Your task to perform on an android device: Search for 8K TVs on Best Buy. Image 0: 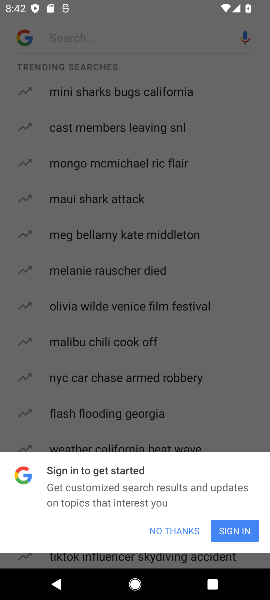
Step 0: press home button
Your task to perform on an android device: Search for 8K TVs on Best Buy. Image 1: 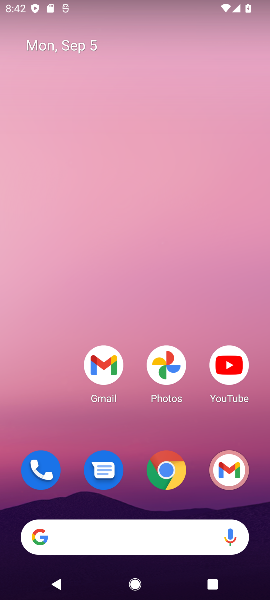
Step 1: click (135, 539)
Your task to perform on an android device: Search for 8K TVs on Best Buy. Image 2: 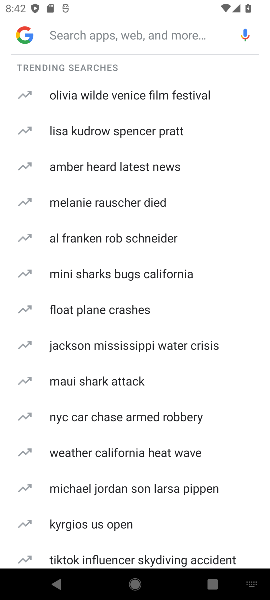
Step 2: type "best buy"
Your task to perform on an android device: Search for 8K TVs on Best Buy. Image 3: 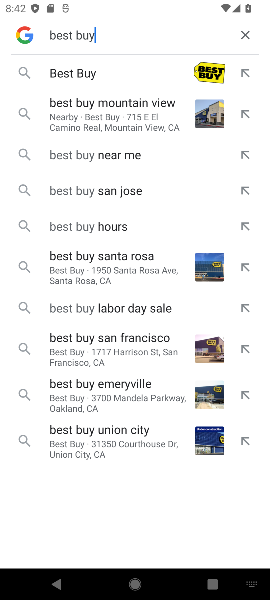
Step 3: click (81, 66)
Your task to perform on an android device: Search for 8K TVs on Best Buy. Image 4: 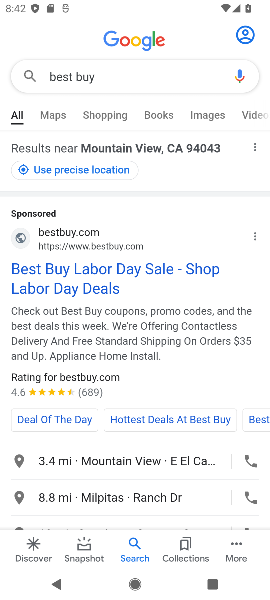
Step 4: click (81, 267)
Your task to perform on an android device: Search for 8K TVs on Best Buy. Image 5: 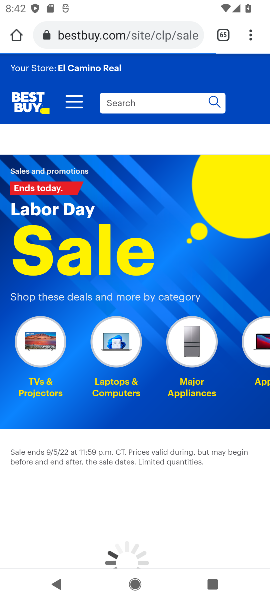
Step 5: click (123, 98)
Your task to perform on an android device: Search for 8K TVs on Best Buy. Image 6: 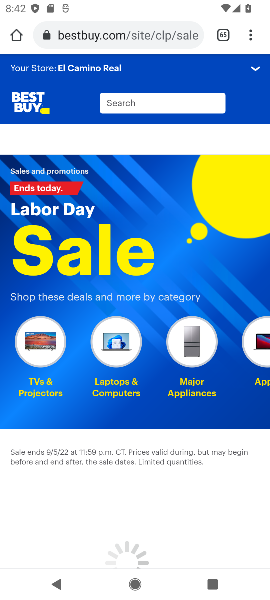
Step 6: click (139, 100)
Your task to perform on an android device: Search for 8K TVs on Best Buy. Image 7: 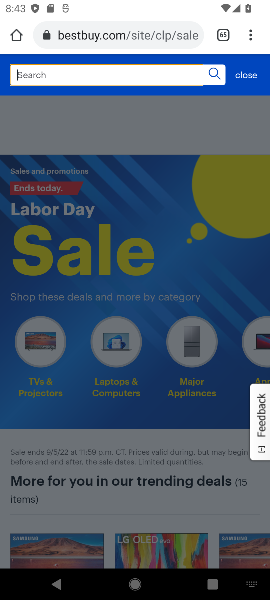
Step 7: type "8k tvs"
Your task to perform on an android device: Search for 8K TVs on Best Buy. Image 8: 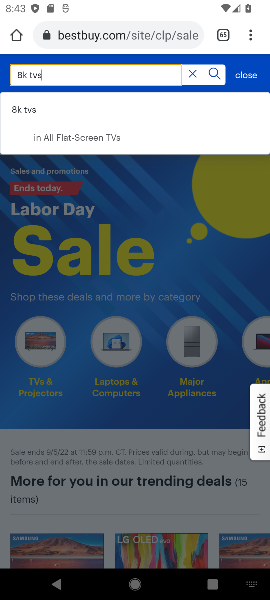
Step 8: click (216, 70)
Your task to perform on an android device: Search for 8K TVs on Best Buy. Image 9: 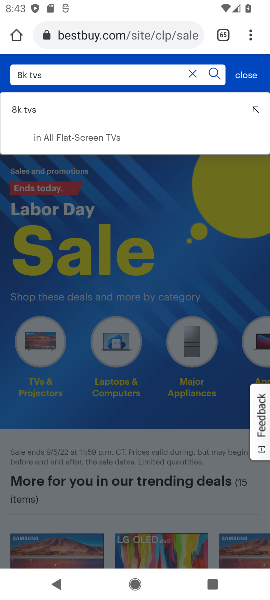
Step 9: click (213, 75)
Your task to perform on an android device: Search for 8K TVs on Best Buy. Image 10: 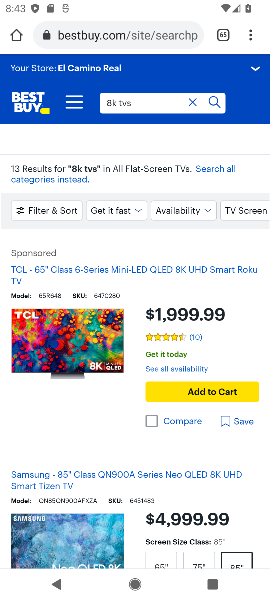
Step 10: task complete